Your task to perform on an android device: toggle priority inbox in the gmail app Image 0: 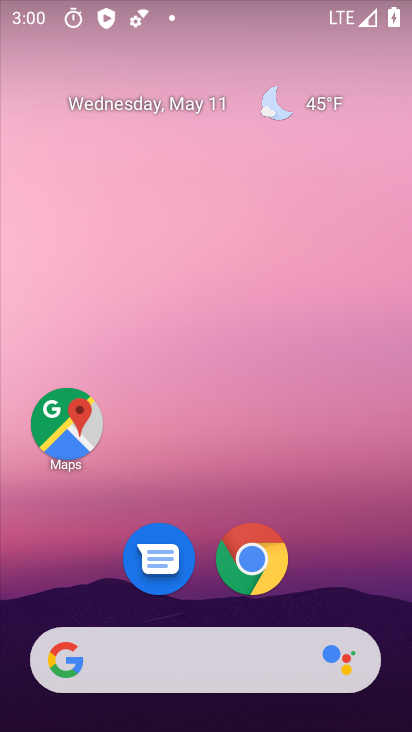
Step 0: drag from (324, 573) to (220, 142)
Your task to perform on an android device: toggle priority inbox in the gmail app Image 1: 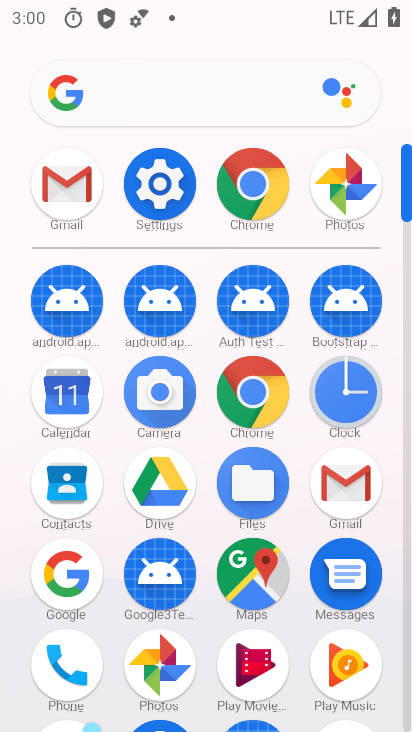
Step 1: click (344, 487)
Your task to perform on an android device: toggle priority inbox in the gmail app Image 2: 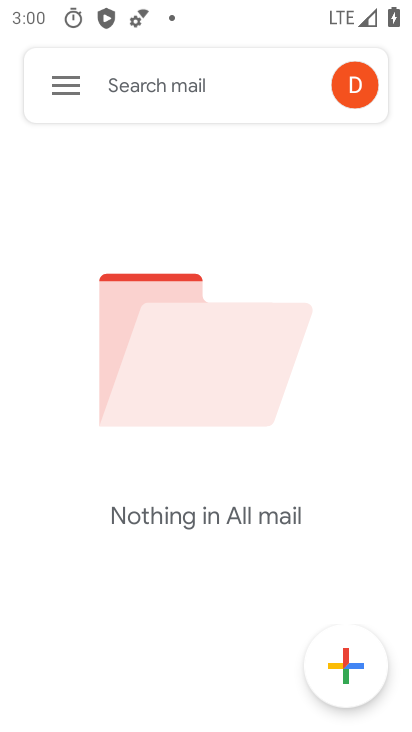
Step 2: click (58, 85)
Your task to perform on an android device: toggle priority inbox in the gmail app Image 3: 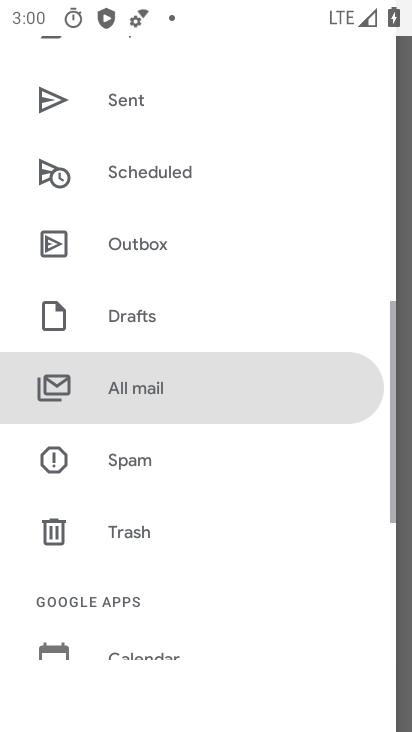
Step 3: drag from (184, 568) to (169, 138)
Your task to perform on an android device: toggle priority inbox in the gmail app Image 4: 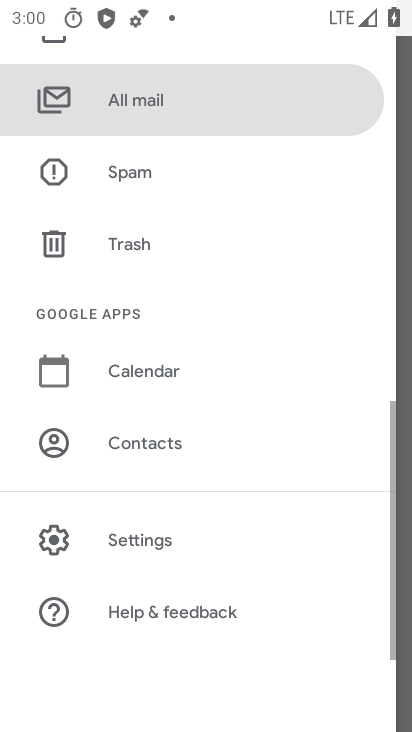
Step 4: click (179, 530)
Your task to perform on an android device: toggle priority inbox in the gmail app Image 5: 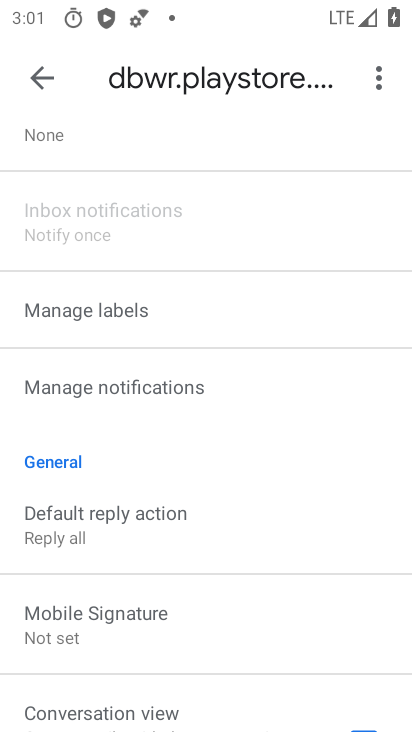
Step 5: drag from (162, 653) to (179, 194)
Your task to perform on an android device: toggle priority inbox in the gmail app Image 6: 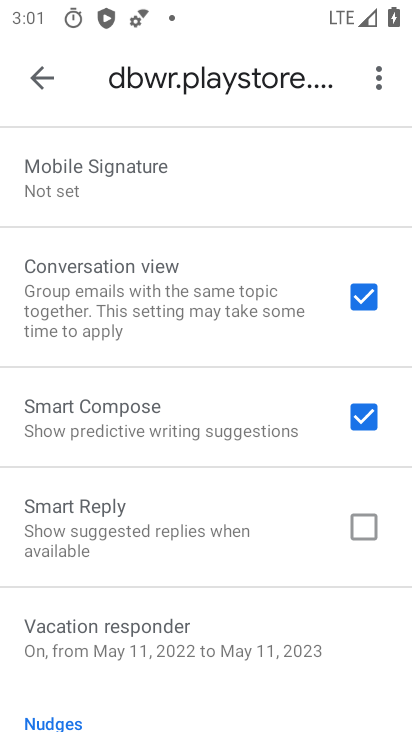
Step 6: drag from (127, 251) to (136, 685)
Your task to perform on an android device: toggle priority inbox in the gmail app Image 7: 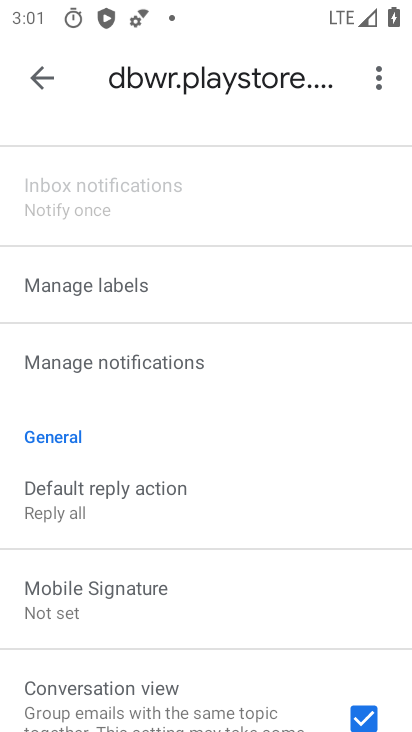
Step 7: drag from (148, 262) to (153, 680)
Your task to perform on an android device: toggle priority inbox in the gmail app Image 8: 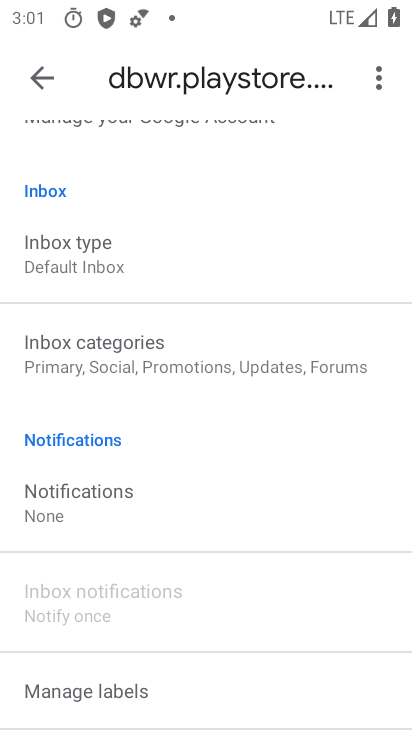
Step 8: click (99, 266)
Your task to perform on an android device: toggle priority inbox in the gmail app Image 9: 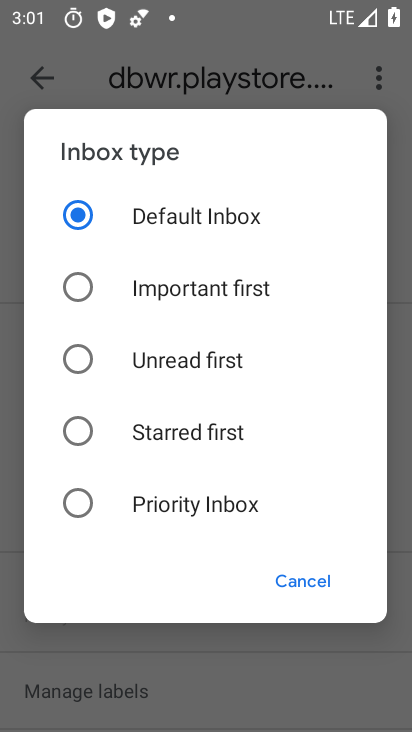
Step 9: click (181, 517)
Your task to perform on an android device: toggle priority inbox in the gmail app Image 10: 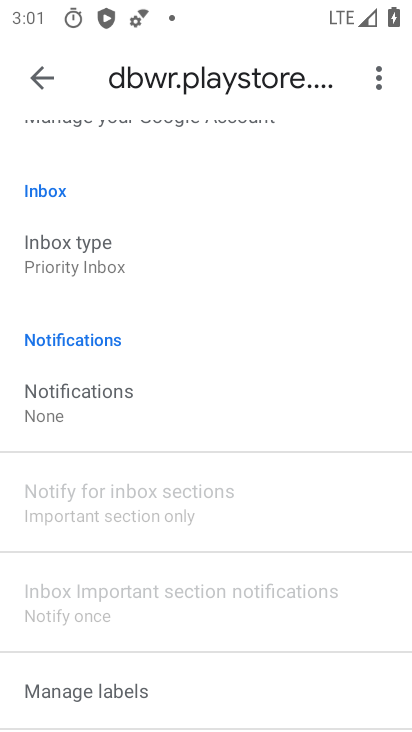
Step 10: task complete